Your task to perform on an android device: toggle notifications settings in the gmail app Image 0: 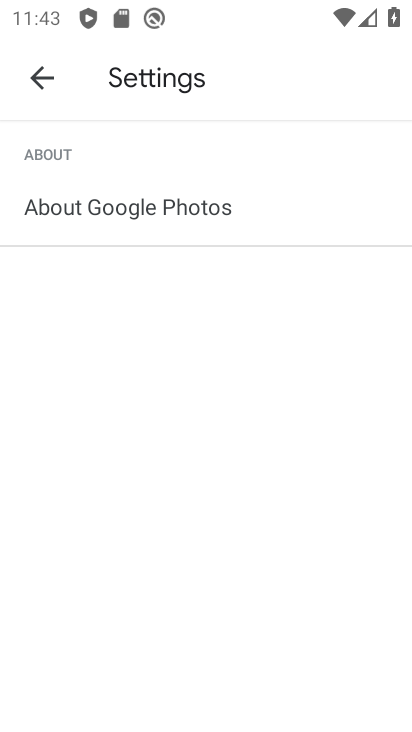
Step 0: press home button
Your task to perform on an android device: toggle notifications settings in the gmail app Image 1: 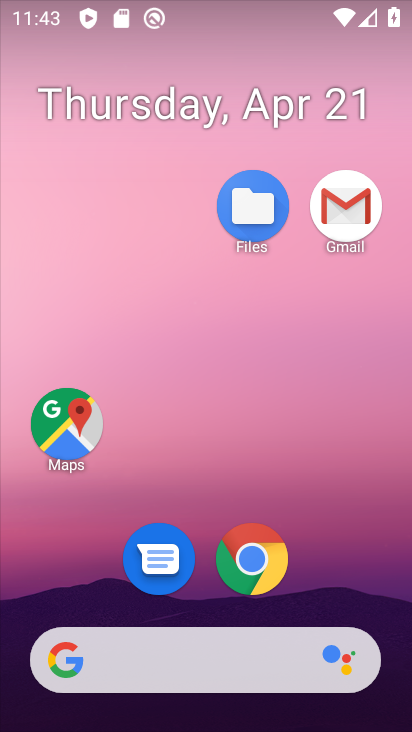
Step 1: drag from (228, 630) to (293, 56)
Your task to perform on an android device: toggle notifications settings in the gmail app Image 2: 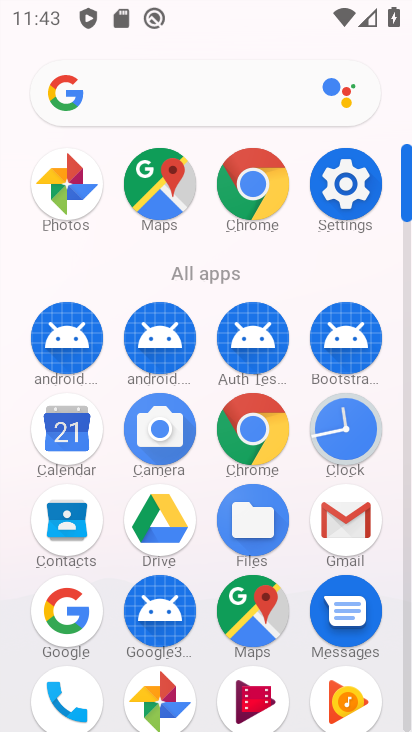
Step 2: click (342, 529)
Your task to perform on an android device: toggle notifications settings in the gmail app Image 3: 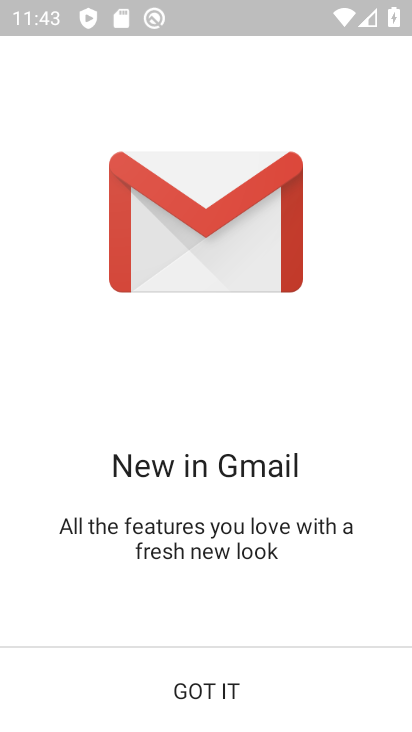
Step 3: click (191, 678)
Your task to perform on an android device: toggle notifications settings in the gmail app Image 4: 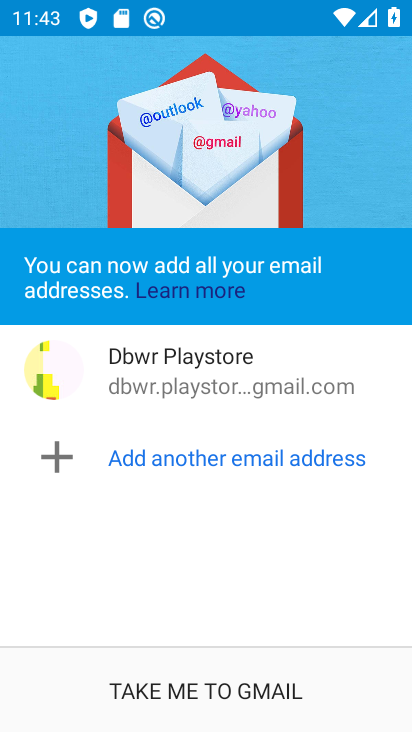
Step 4: click (191, 678)
Your task to perform on an android device: toggle notifications settings in the gmail app Image 5: 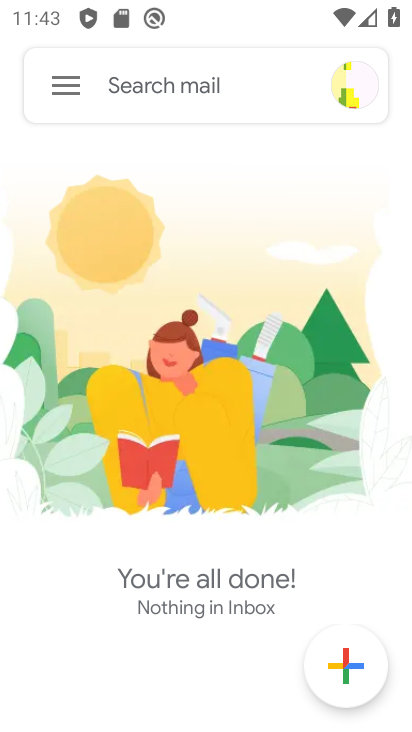
Step 5: click (191, 678)
Your task to perform on an android device: toggle notifications settings in the gmail app Image 6: 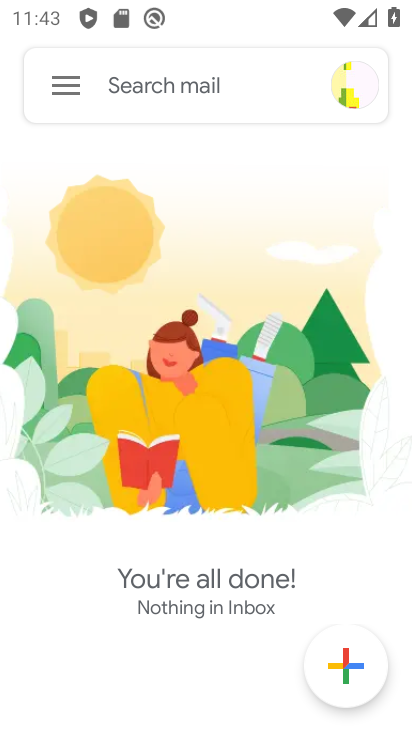
Step 6: click (50, 91)
Your task to perform on an android device: toggle notifications settings in the gmail app Image 7: 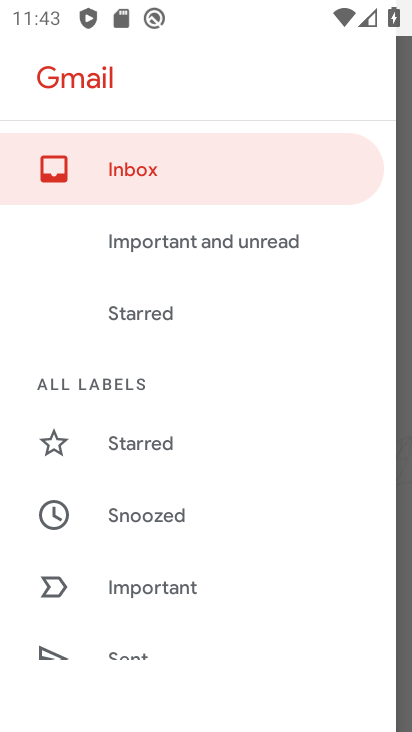
Step 7: drag from (141, 558) to (120, 207)
Your task to perform on an android device: toggle notifications settings in the gmail app Image 8: 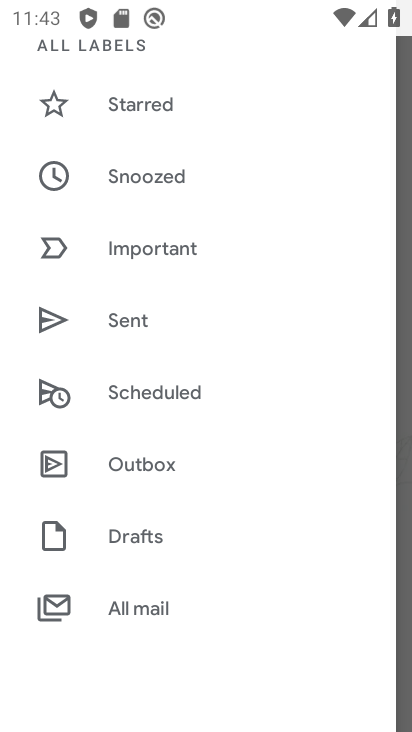
Step 8: drag from (210, 581) to (267, 114)
Your task to perform on an android device: toggle notifications settings in the gmail app Image 9: 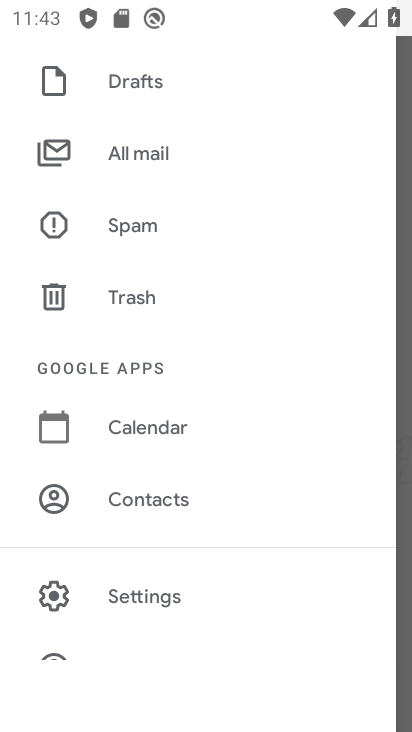
Step 9: click (145, 611)
Your task to perform on an android device: toggle notifications settings in the gmail app Image 10: 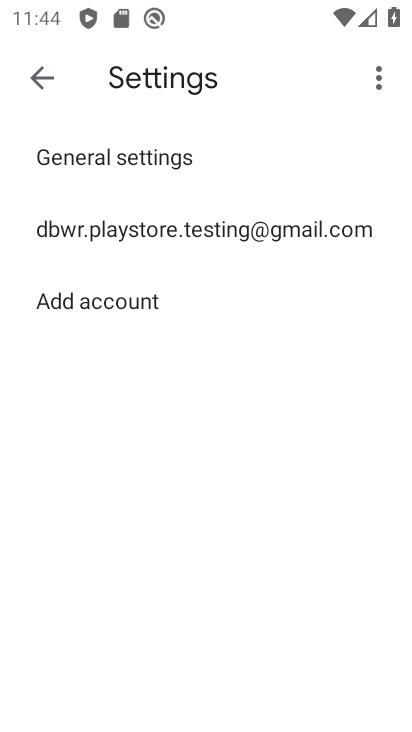
Step 10: click (166, 223)
Your task to perform on an android device: toggle notifications settings in the gmail app Image 11: 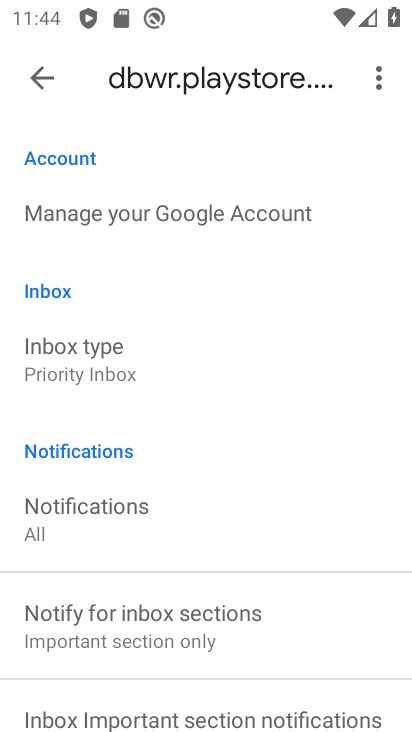
Step 11: drag from (157, 539) to (208, 181)
Your task to perform on an android device: toggle notifications settings in the gmail app Image 12: 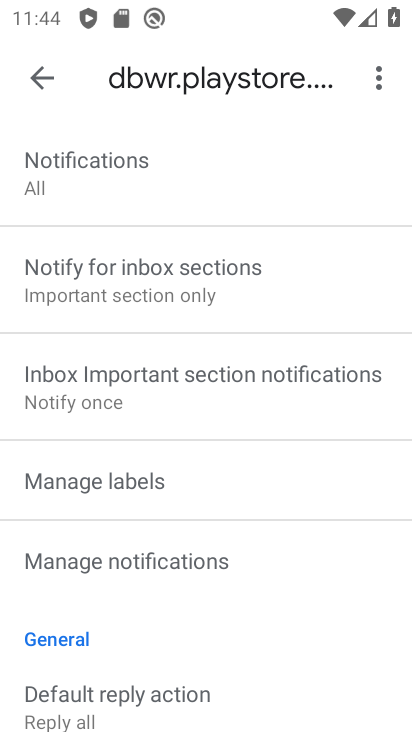
Step 12: click (169, 559)
Your task to perform on an android device: toggle notifications settings in the gmail app Image 13: 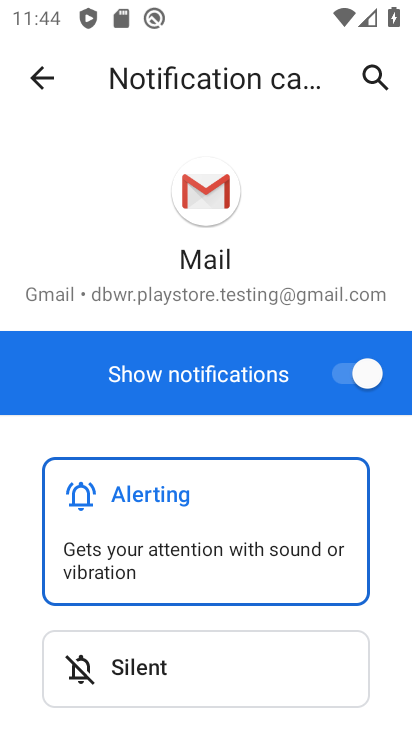
Step 13: click (336, 371)
Your task to perform on an android device: toggle notifications settings in the gmail app Image 14: 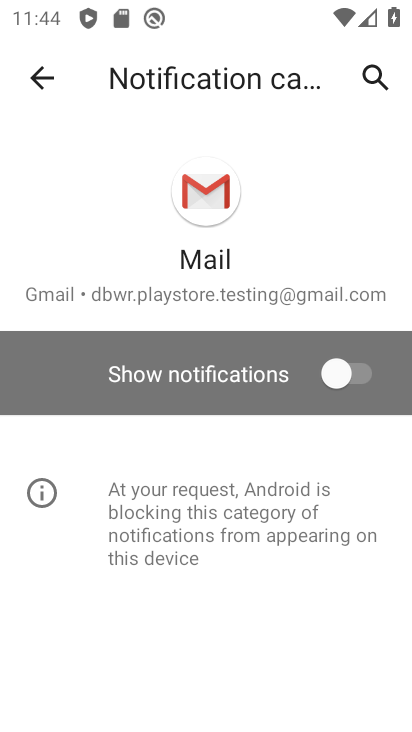
Step 14: task complete